Your task to perform on an android device: snooze an email in the gmail app Image 0: 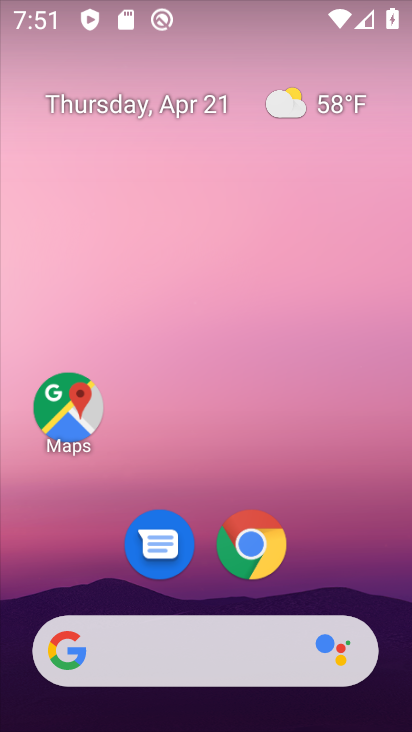
Step 0: drag from (240, 575) to (170, 31)
Your task to perform on an android device: snooze an email in the gmail app Image 1: 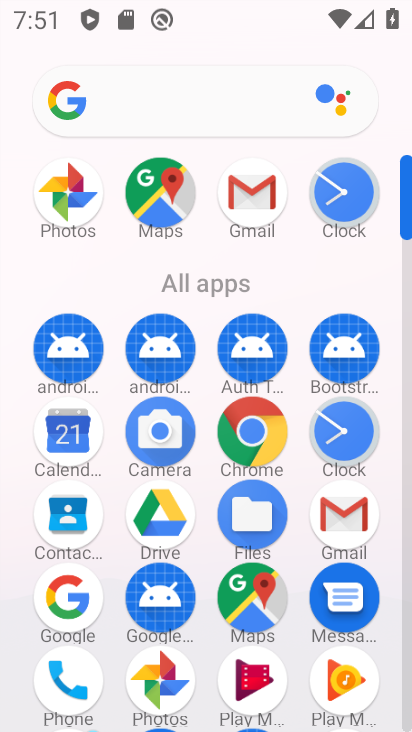
Step 1: click (332, 503)
Your task to perform on an android device: snooze an email in the gmail app Image 2: 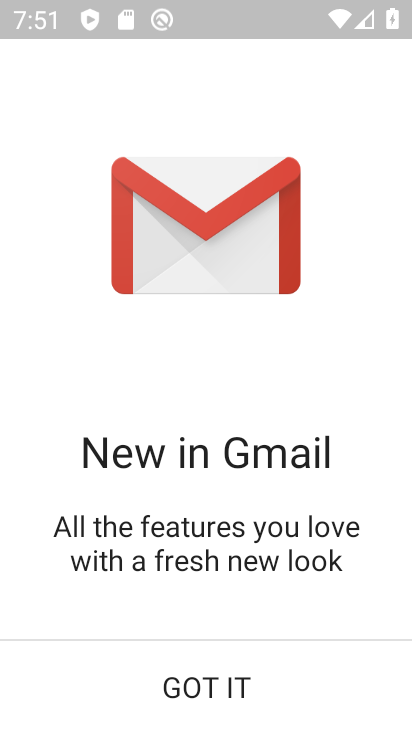
Step 2: click (208, 706)
Your task to perform on an android device: snooze an email in the gmail app Image 3: 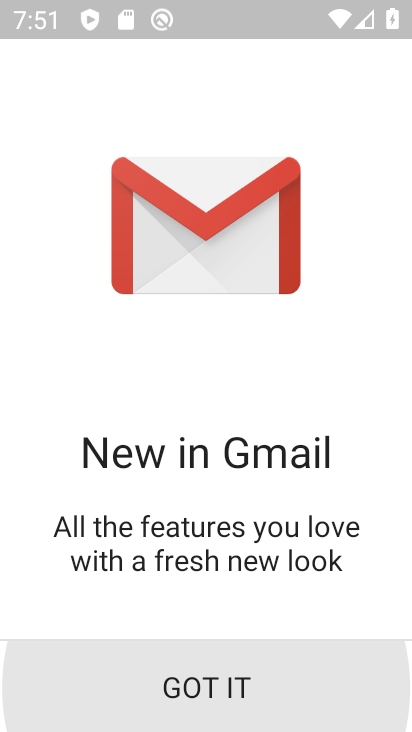
Step 3: click (208, 706)
Your task to perform on an android device: snooze an email in the gmail app Image 4: 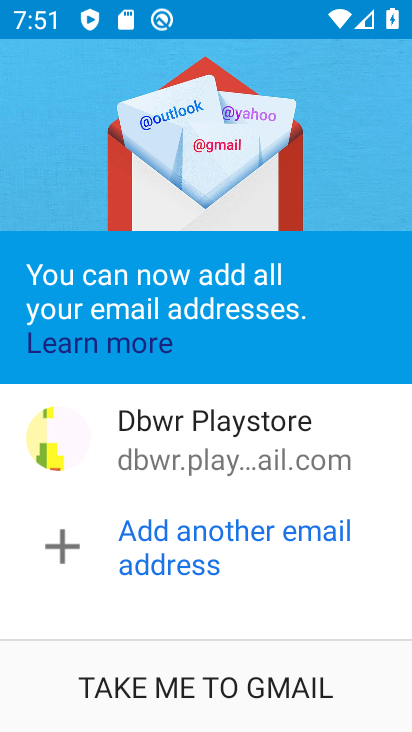
Step 4: click (245, 698)
Your task to perform on an android device: snooze an email in the gmail app Image 5: 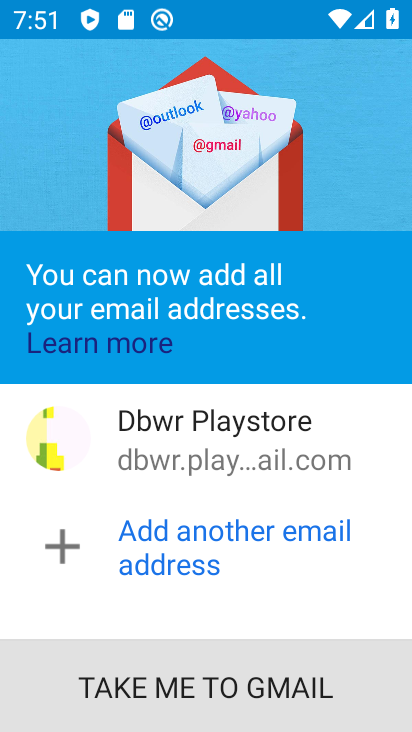
Step 5: click (245, 698)
Your task to perform on an android device: snooze an email in the gmail app Image 6: 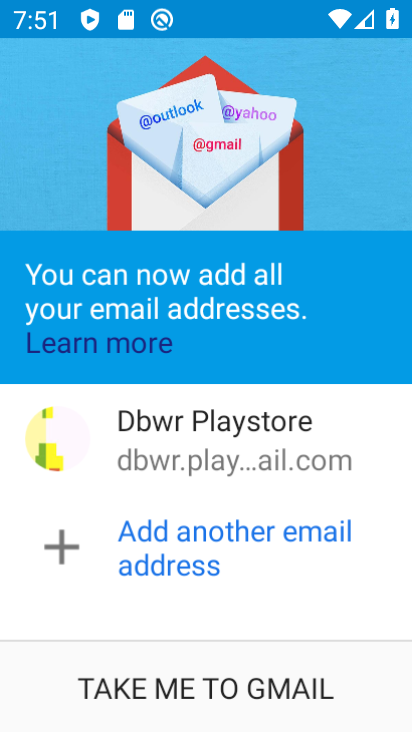
Step 6: click (249, 697)
Your task to perform on an android device: snooze an email in the gmail app Image 7: 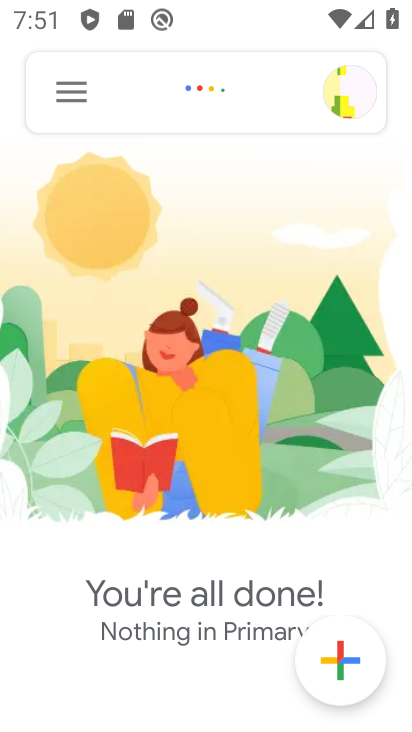
Step 7: click (63, 89)
Your task to perform on an android device: snooze an email in the gmail app Image 8: 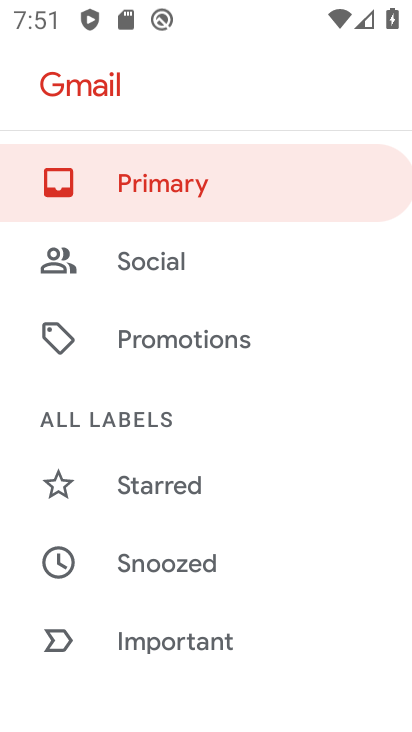
Step 8: drag from (179, 518) to (190, 390)
Your task to perform on an android device: snooze an email in the gmail app Image 9: 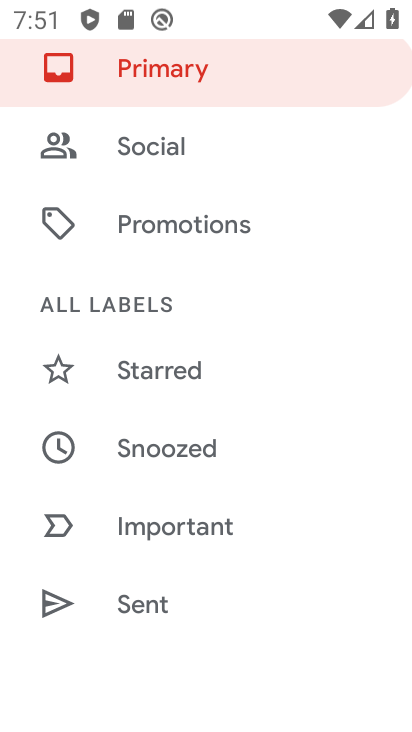
Step 9: drag from (217, 566) to (221, 277)
Your task to perform on an android device: snooze an email in the gmail app Image 10: 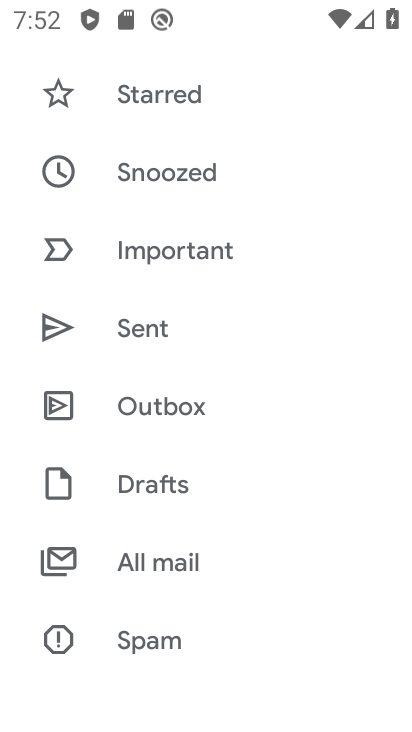
Step 10: click (147, 559)
Your task to perform on an android device: snooze an email in the gmail app Image 11: 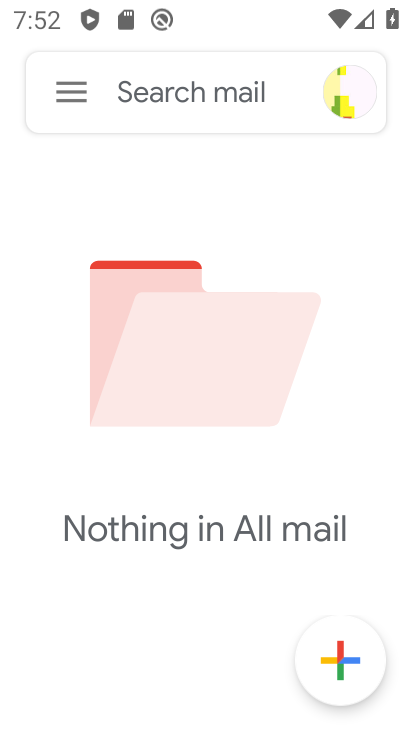
Step 11: task complete